Your task to perform on an android device: allow notifications from all sites in the chrome app Image 0: 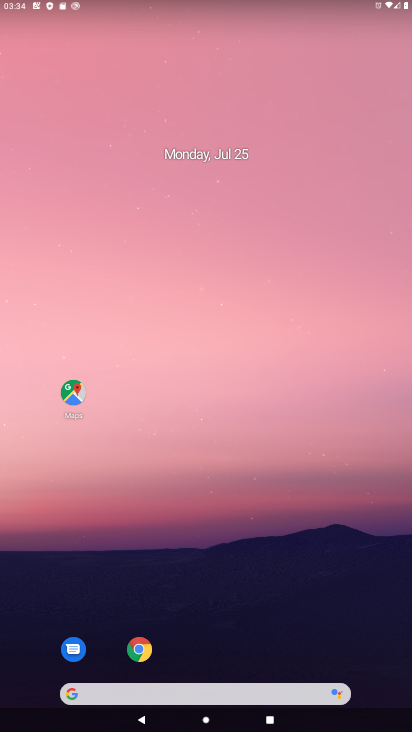
Step 0: click (138, 650)
Your task to perform on an android device: allow notifications from all sites in the chrome app Image 1: 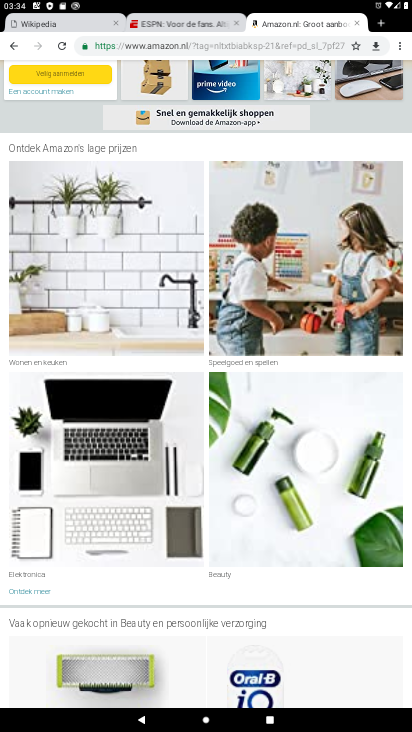
Step 1: click (398, 48)
Your task to perform on an android device: allow notifications from all sites in the chrome app Image 2: 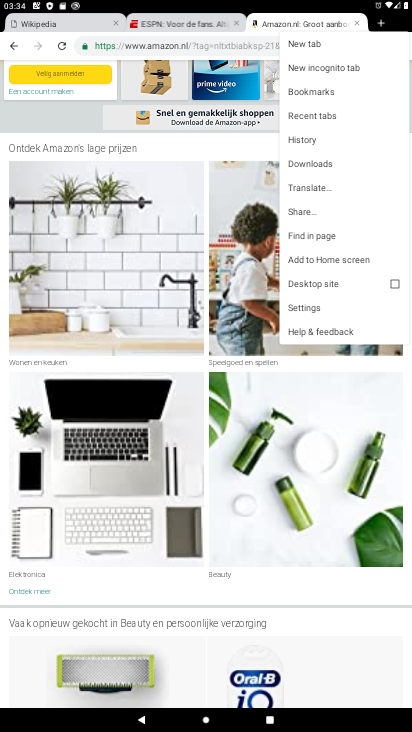
Step 2: click (304, 310)
Your task to perform on an android device: allow notifications from all sites in the chrome app Image 3: 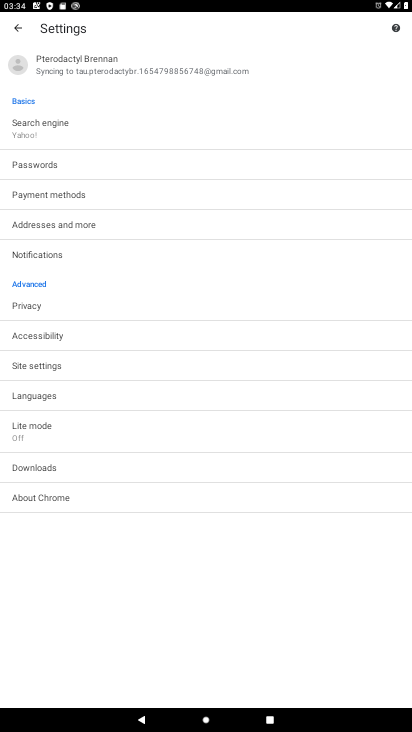
Step 3: click (43, 367)
Your task to perform on an android device: allow notifications from all sites in the chrome app Image 4: 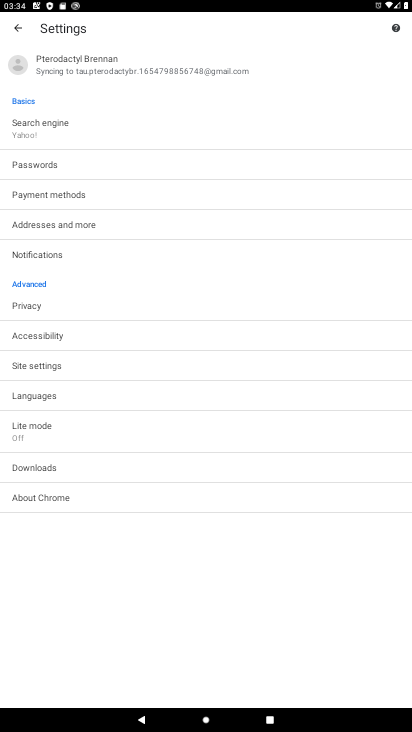
Step 4: click (43, 367)
Your task to perform on an android device: allow notifications from all sites in the chrome app Image 5: 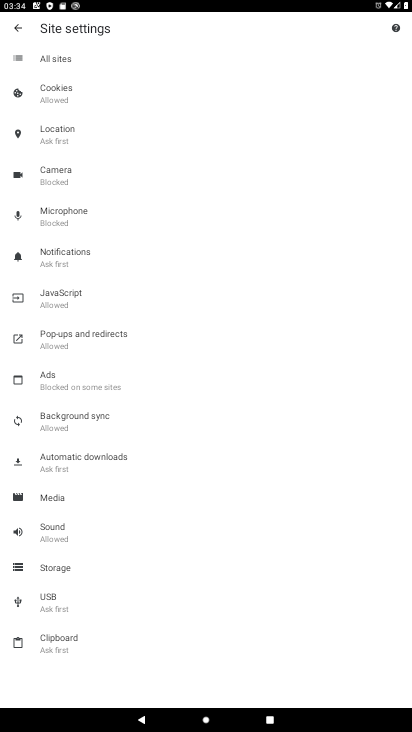
Step 5: click (57, 252)
Your task to perform on an android device: allow notifications from all sites in the chrome app Image 6: 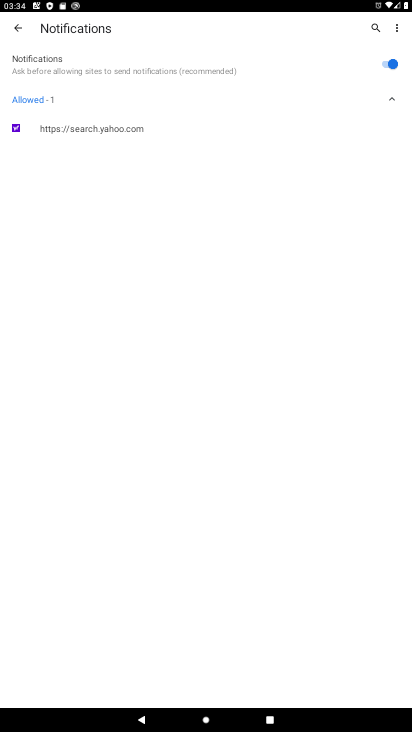
Step 6: task complete